Your task to perform on an android device: Go to network settings Image 0: 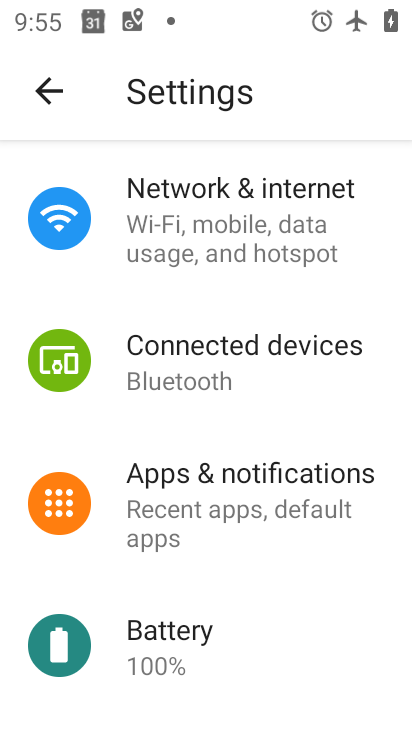
Step 0: click (197, 161)
Your task to perform on an android device: Go to network settings Image 1: 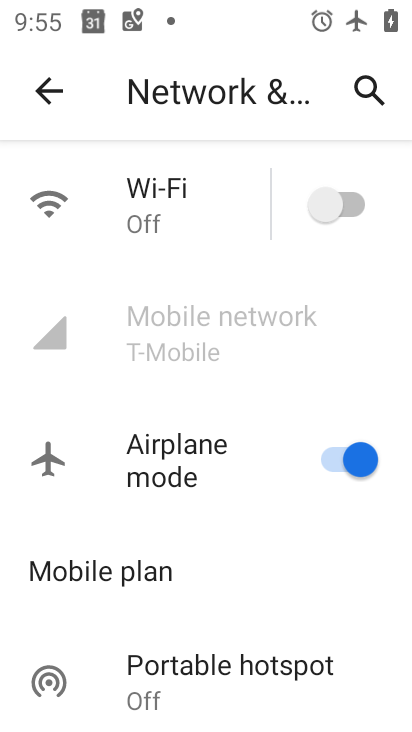
Step 1: task complete